Your task to perform on an android device: Check the news Image 0: 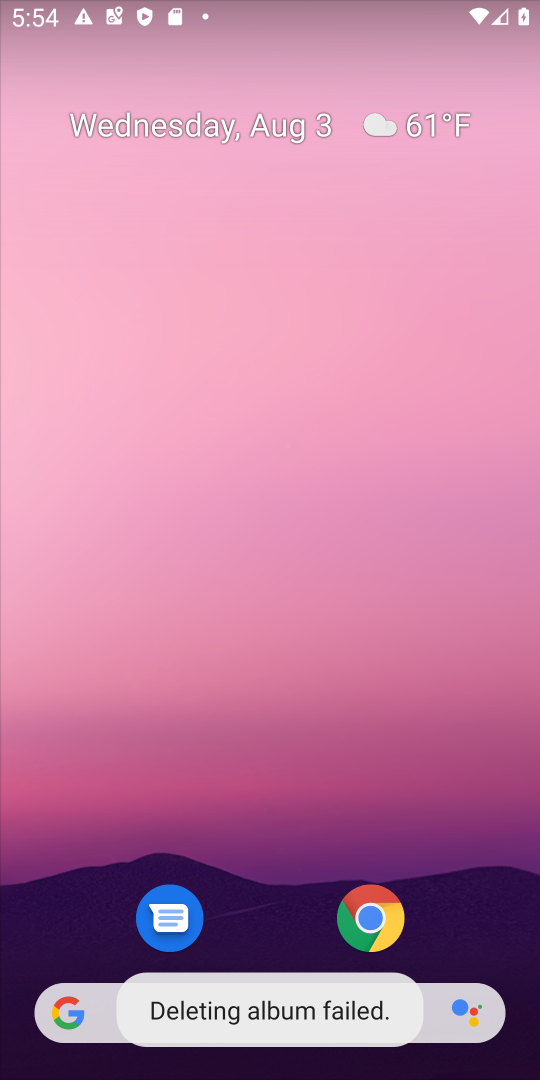
Step 0: click (104, 1002)
Your task to perform on an android device: Check the news Image 1: 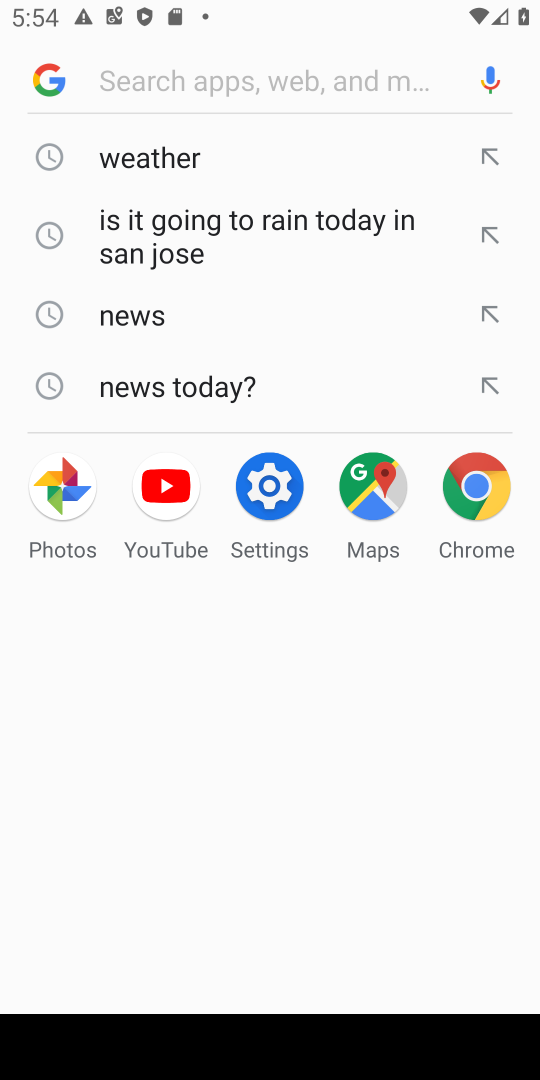
Step 1: type "news"
Your task to perform on an android device: Check the news Image 2: 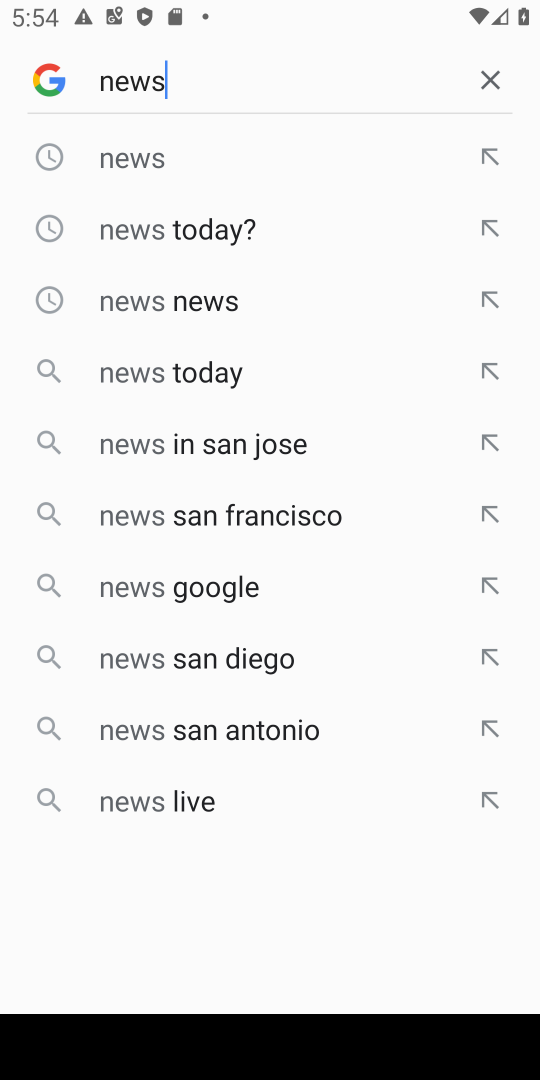
Step 2: click (232, 158)
Your task to perform on an android device: Check the news Image 3: 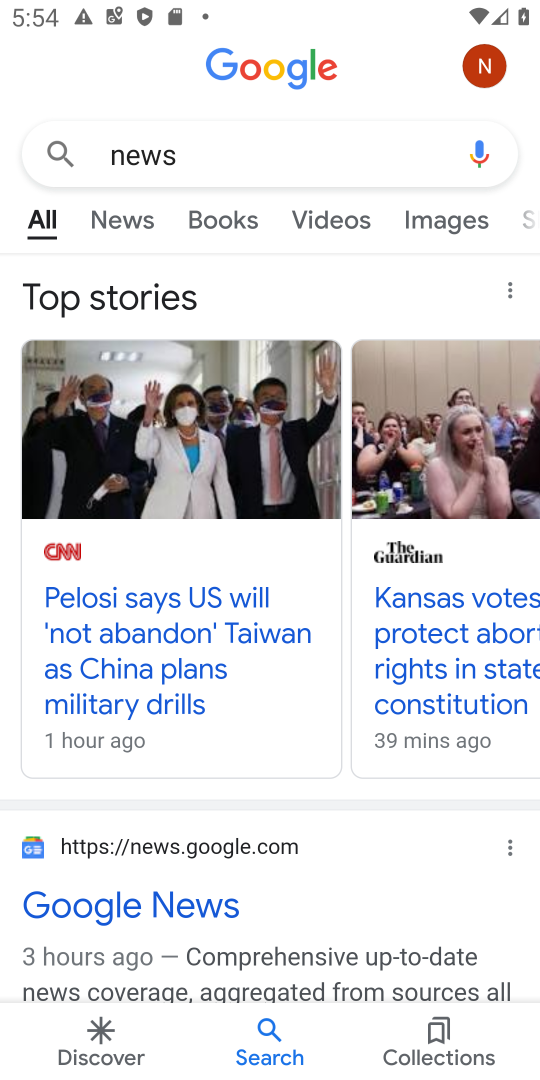
Step 3: click (126, 227)
Your task to perform on an android device: Check the news Image 4: 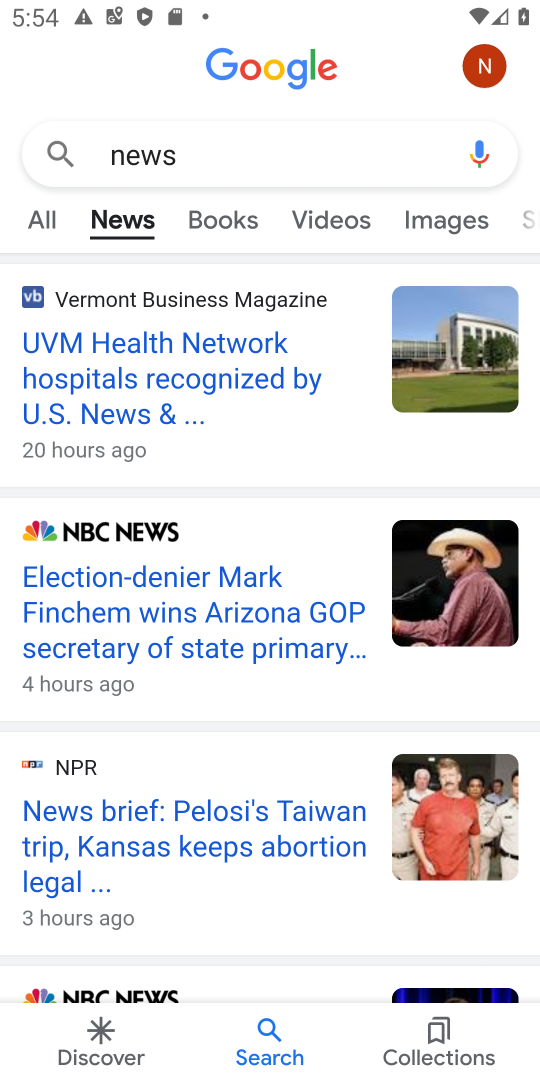
Step 4: task complete